Your task to perform on an android device: open app "Move to iOS" (install if not already installed) Image 0: 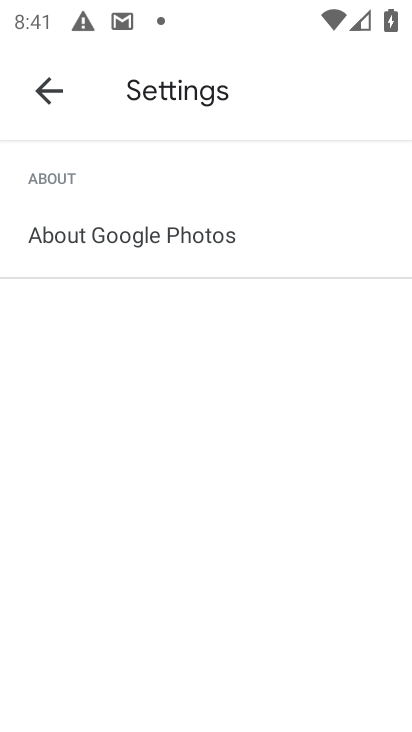
Step 0: press home button
Your task to perform on an android device: open app "Move to iOS" (install if not already installed) Image 1: 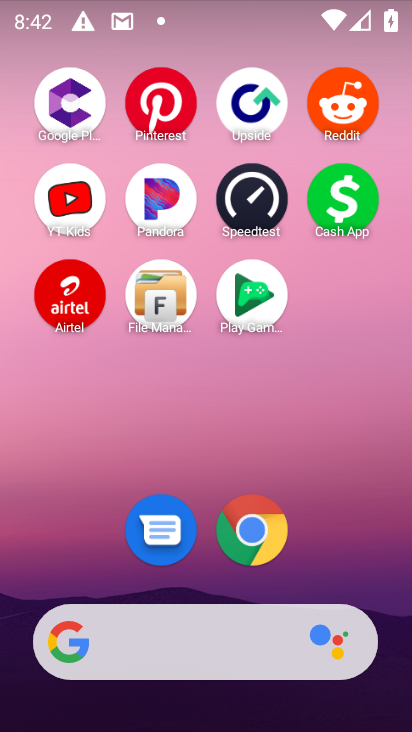
Step 1: drag from (108, 605) to (154, 93)
Your task to perform on an android device: open app "Move to iOS" (install if not already installed) Image 2: 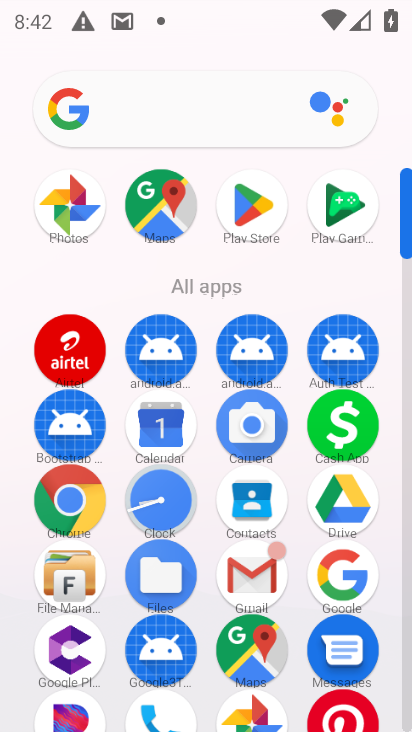
Step 2: click (257, 214)
Your task to perform on an android device: open app "Move to iOS" (install if not already installed) Image 3: 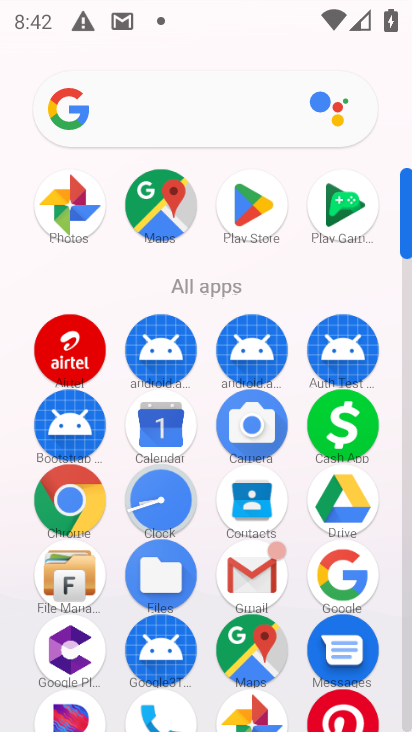
Step 3: click (257, 214)
Your task to perform on an android device: open app "Move to iOS" (install if not already installed) Image 4: 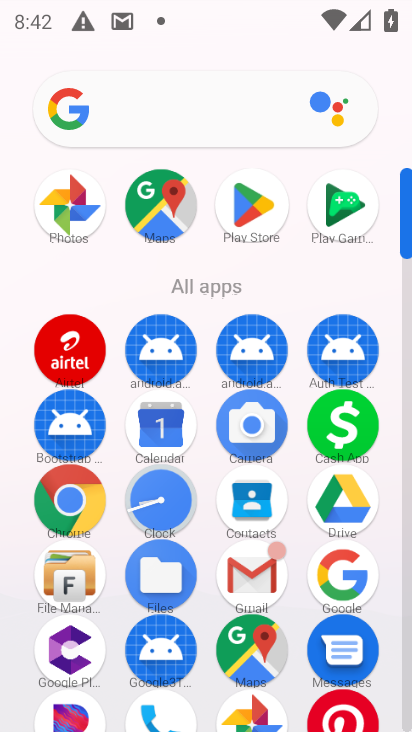
Step 4: click (257, 214)
Your task to perform on an android device: open app "Move to iOS" (install if not already installed) Image 5: 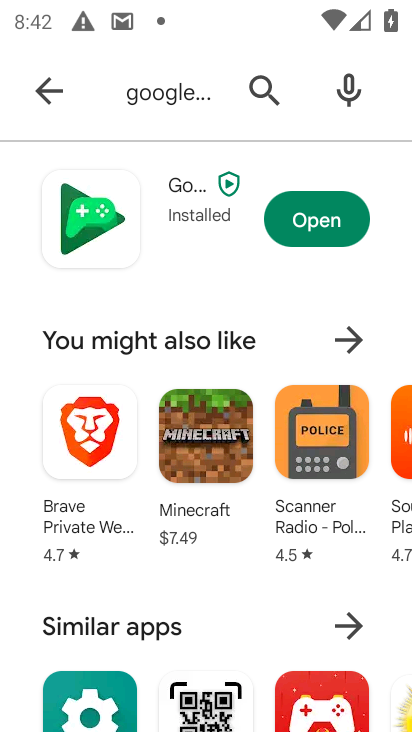
Step 5: click (261, 97)
Your task to perform on an android device: open app "Move to iOS" (install if not already installed) Image 6: 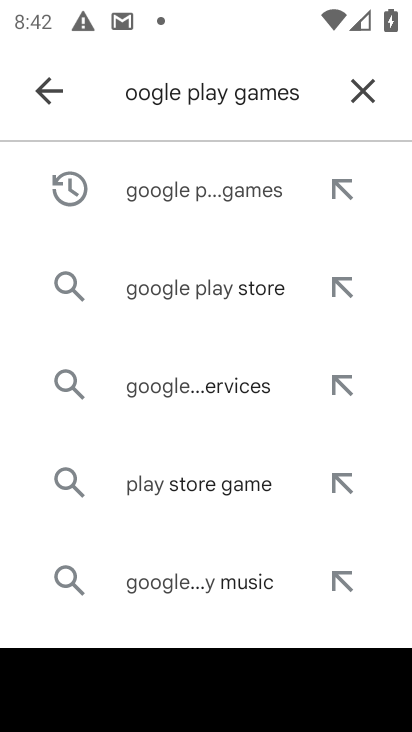
Step 6: click (369, 88)
Your task to perform on an android device: open app "Move to iOS" (install if not already installed) Image 7: 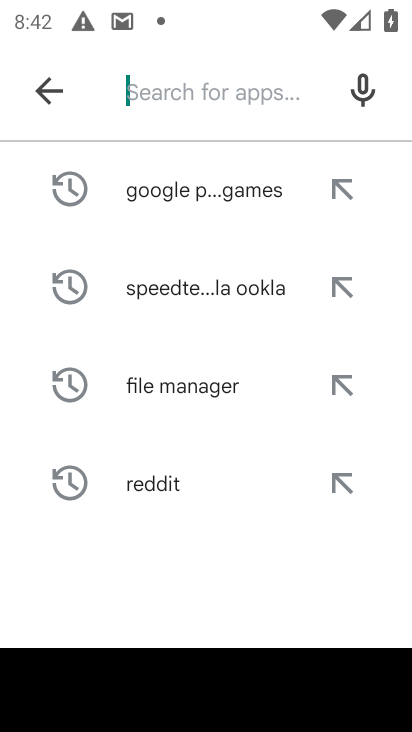
Step 7: type "move  to ios "
Your task to perform on an android device: open app "Move to iOS" (install if not already installed) Image 8: 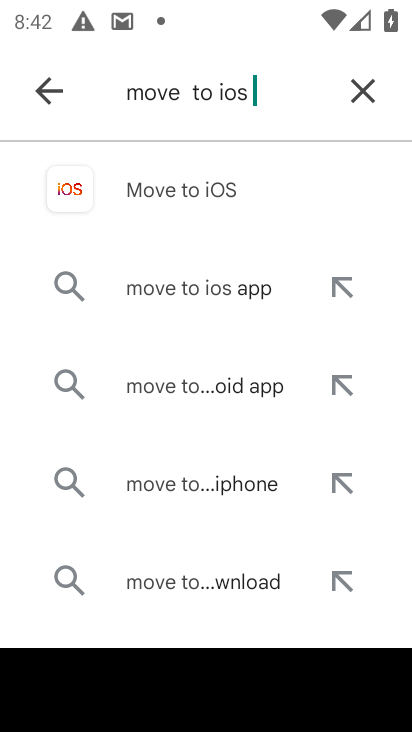
Step 8: click (255, 171)
Your task to perform on an android device: open app "Move to iOS" (install if not already installed) Image 9: 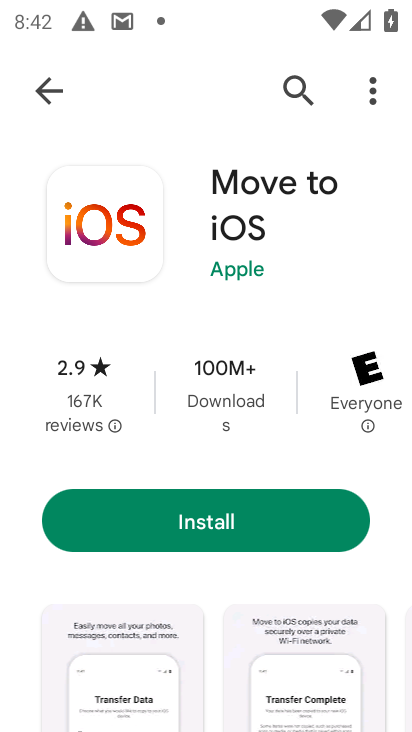
Step 9: click (204, 518)
Your task to perform on an android device: open app "Move to iOS" (install if not already installed) Image 10: 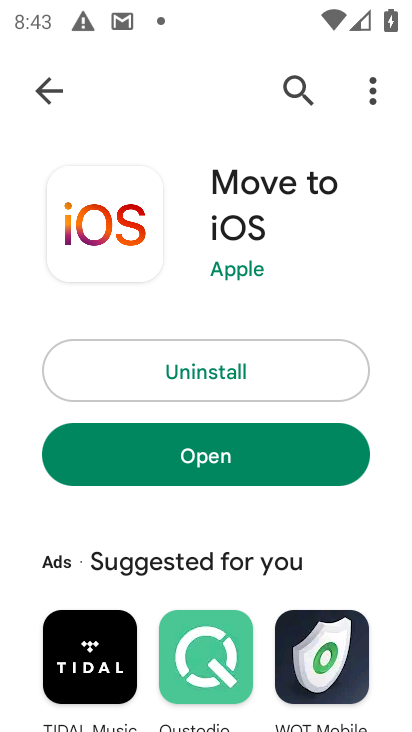
Step 10: click (255, 457)
Your task to perform on an android device: open app "Move to iOS" (install if not already installed) Image 11: 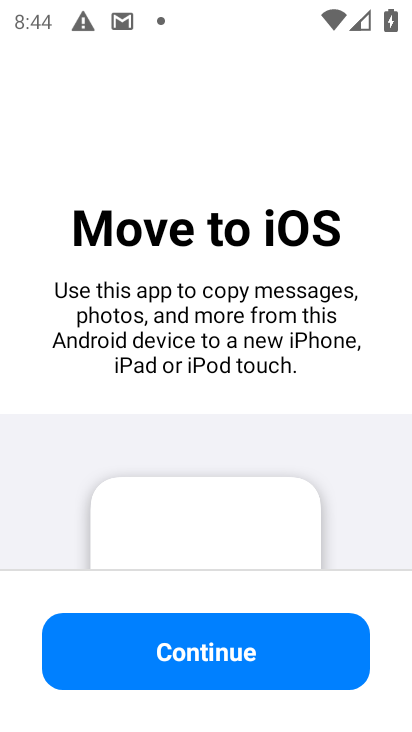
Step 11: task complete